Your task to perform on an android device: What is the recent news? Image 0: 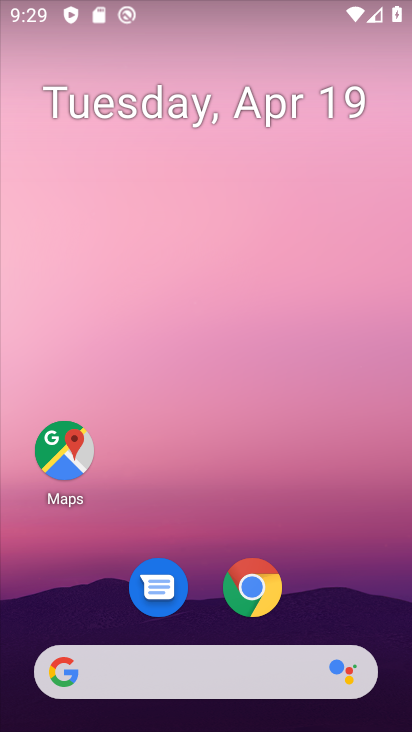
Step 0: drag from (324, 585) to (353, 62)
Your task to perform on an android device: What is the recent news? Image 1: 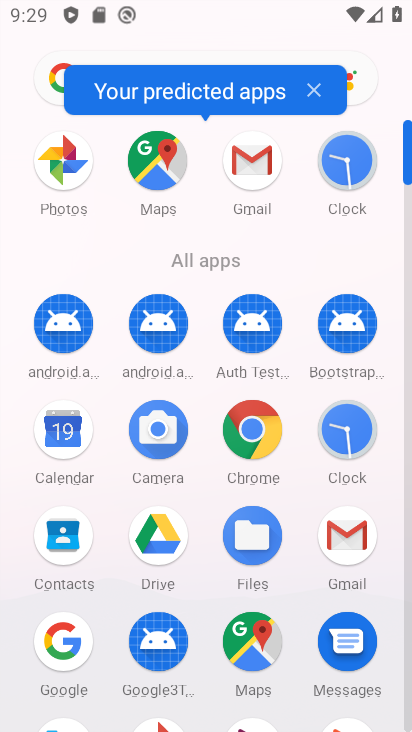
Step 1: click (256, 439)
Your task to perform on an android device: What is the recent news? Image 2: 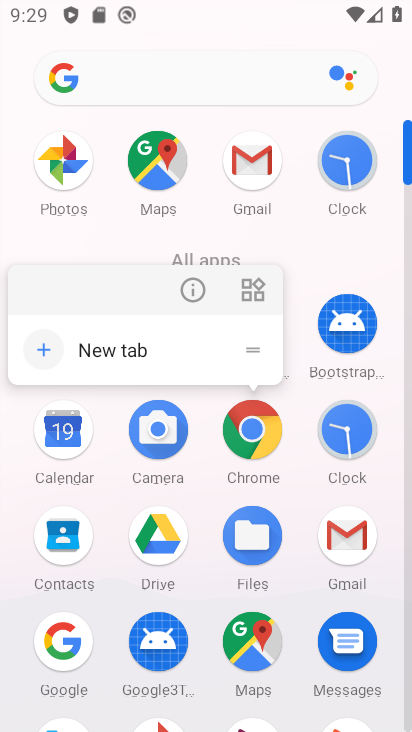
Step 2: click (256, 438)
Your task to perform on an android device: What is the recent news? Image 3: 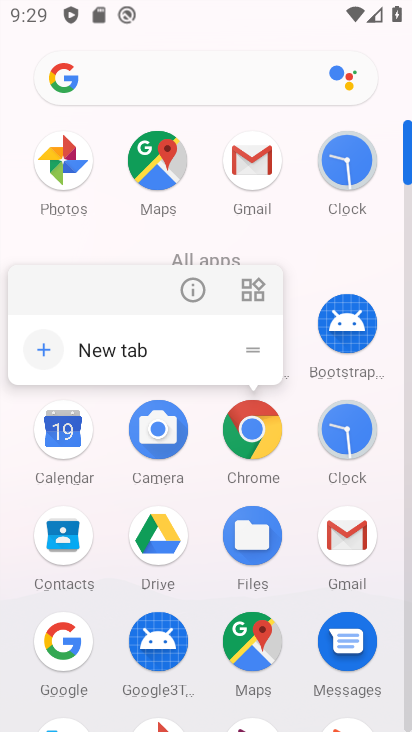
Step 3: click (251, 413)
Your task to perform on an android device: What is the recent news? Image 4: 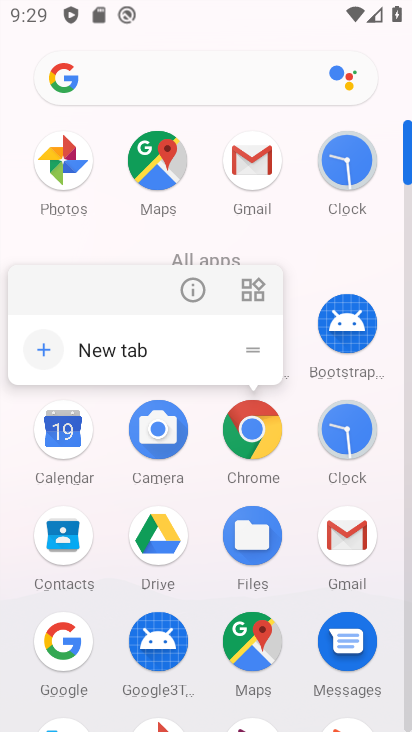
Step 4: click (253, 432)
Your task to perform on an android device: What is the recent news? Image 5: 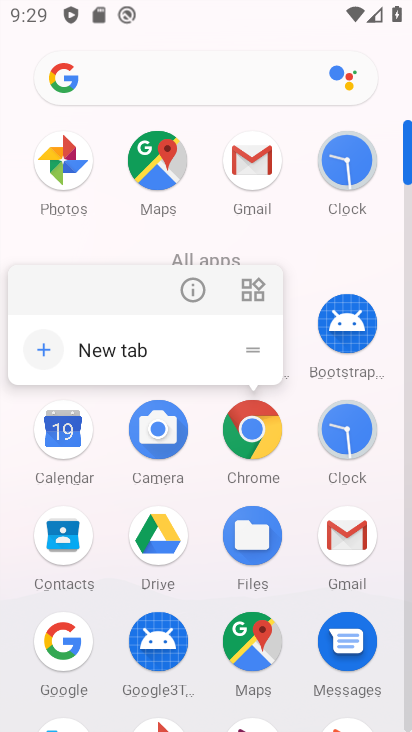
Step 5: click (253, 432)
Your task to perform on an android device: What is the recent news? Image 6: 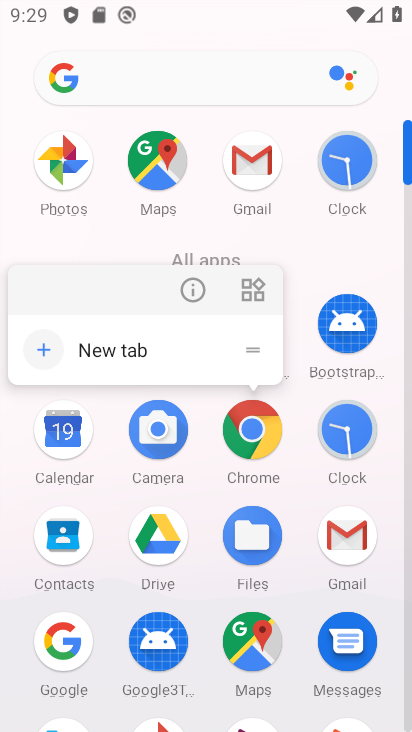
Step 6: click (246, 410)
Your task to perform on an android device: What is the recent news? Image 7: 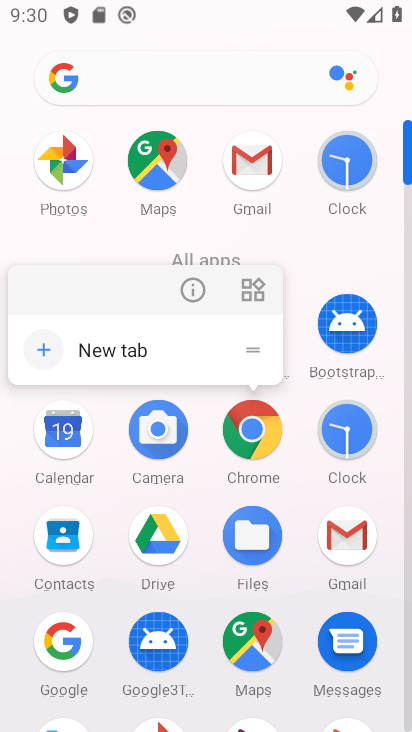
Step 7: click (254, 421)
Your task to perform on an android device: What is the recent news? Image 8: 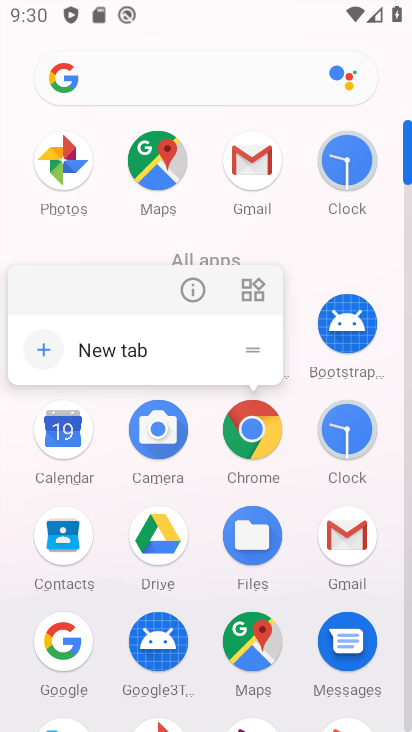
Step 8: click (257, 449)
Your task to perform on an android device: What is the recent news? Image 9: 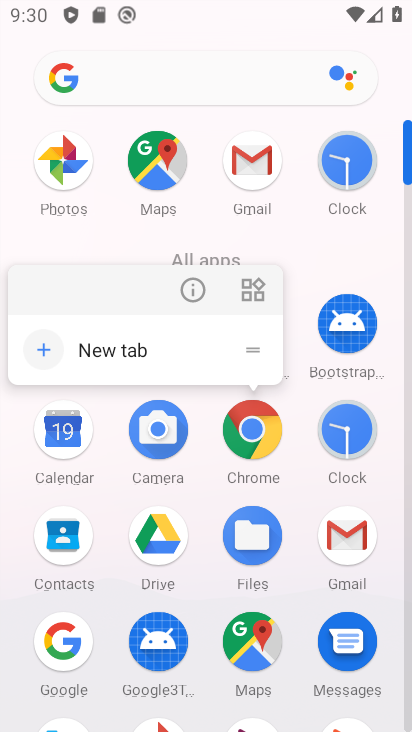
Step 9: click (249, 416)
Your task to perform on an android device: What is the recent news? Image 10: 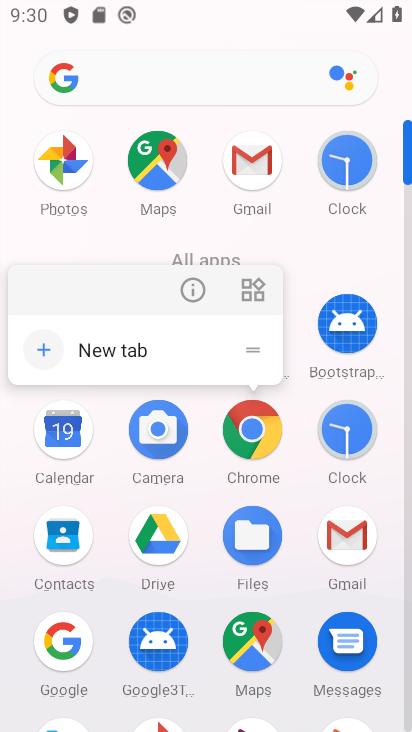
Step 10: click (249, 415)
Your task to perform on an android device: What is the recent news? Image 11: 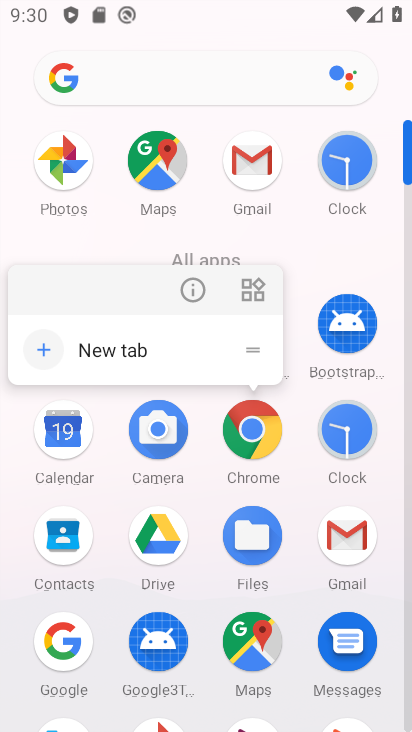
Step 11: click (249, 415)
Your task to perform on an android device: What is the recent news? Image 12: 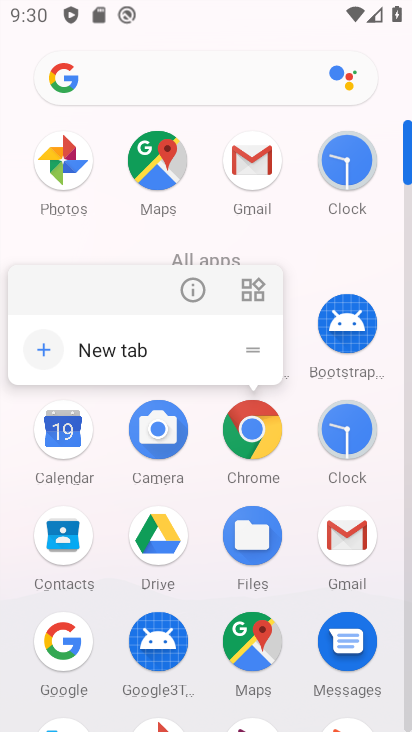
Step 12: click (249, 415)
Your task to perform on an android device: What is the recent news? Image 13: 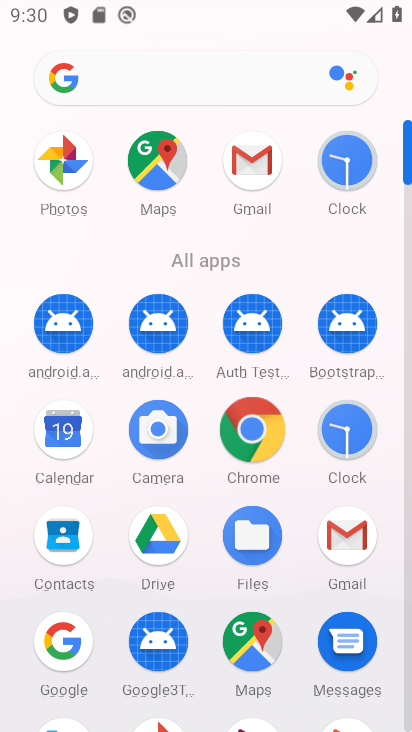
Step 13: click (248, 409)
Your task to perform on an android device: What is the recent news? Image 14: 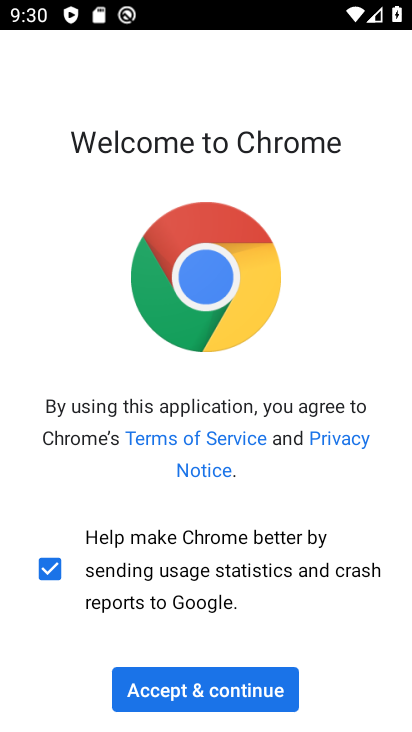
Step 14: click (197, 692)
Your task to perform on an android device: What is the recent news? Image 15: 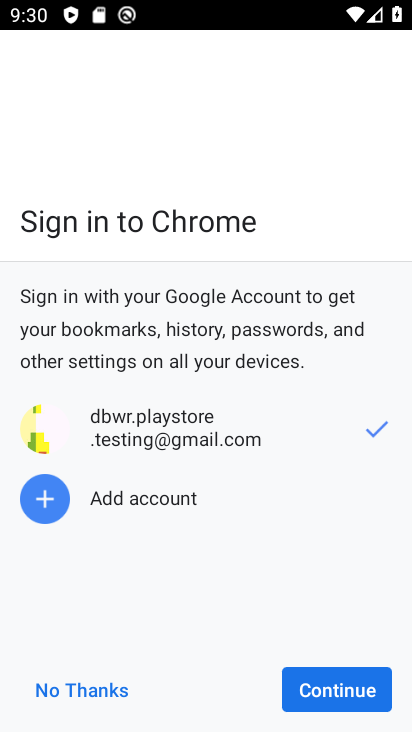
Step 15: click (93, 700)
Your task to perform on an android device: What is the recent news? Image 16: 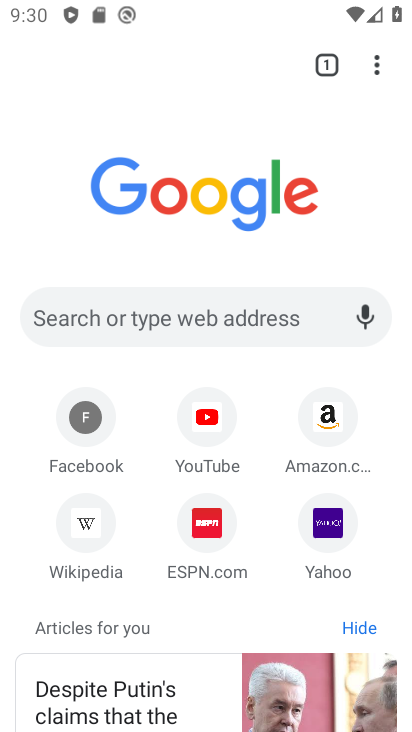
Step 16: task complete